Your task to perform on an android device: Open Yahoo.com Image 0: 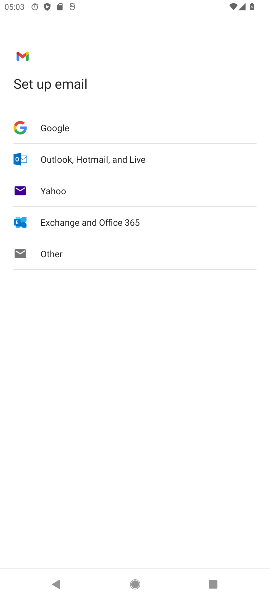
Step 0: press home button
Your task to perform on an android device: Open Yahoo.com Image 1: 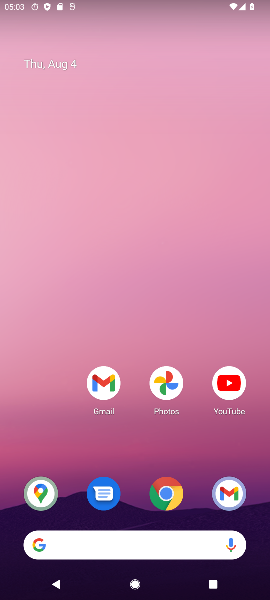
Step 1: click (99, 555)
Your task to perform on an android device: Open Yahoo.com Image 2: 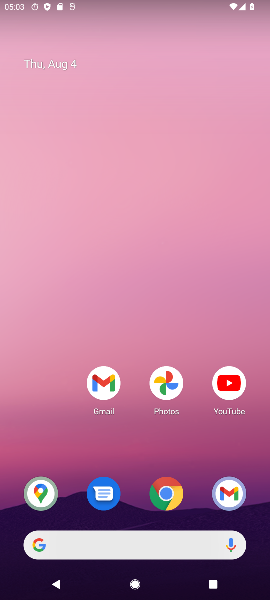
Step 2: click (99, 546)
Your task to perform on an android device: Open Yahoo.com Image 3: 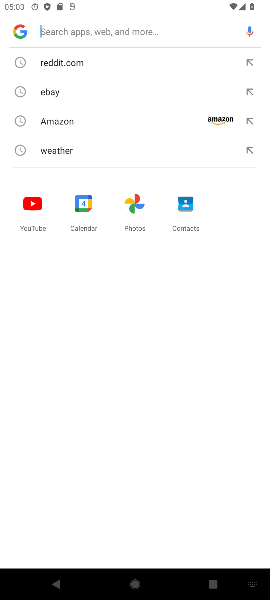
Step 3: type " Yahoo.com"
Your task to perform on an android device: Open Yahoo.com Image 4: 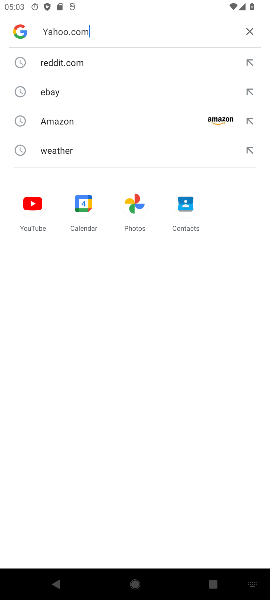
Step 4: type ""
Your task to perform on an android device: Open Yahoo.com Image 5: 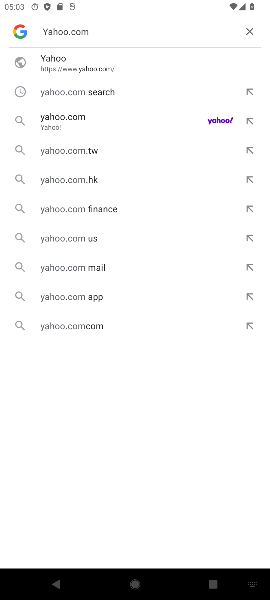
Step 5: click (65, 116)
Your task to perform on an android device: Open Yahoo.com Image 6: 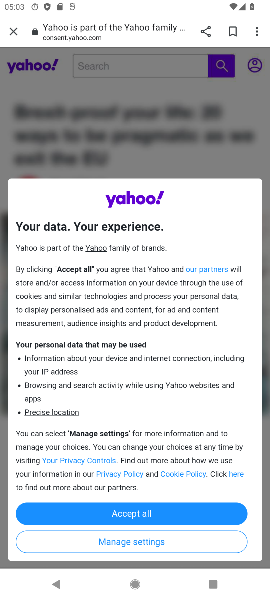
Step 6: task complete